Your task to perform on an android device: What's the weather going to be this weekend? Image 0: 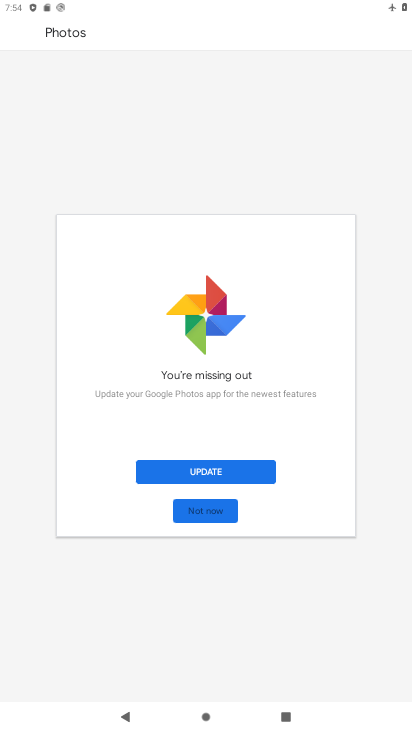
Step 0: press back button
Your task to perform on an android device: What's the weather going to be this weekend? Image 1: 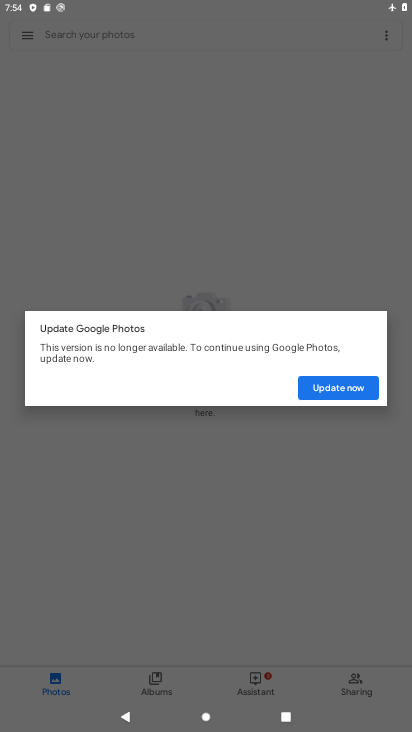
Step 1: press back button
Your task to perform on an android device: What's the weather going to be this weekend? Image 2: 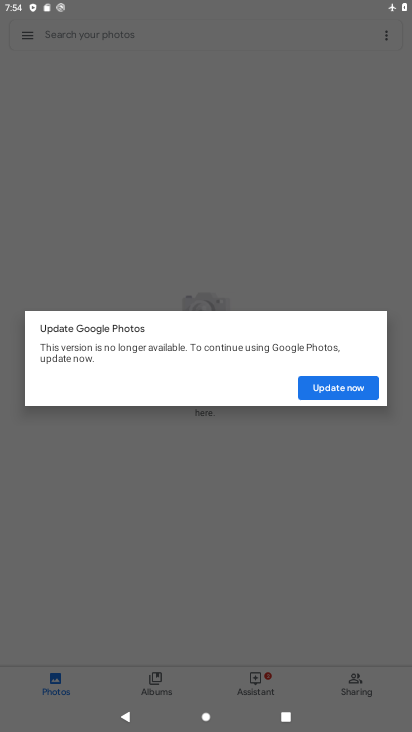
Step 2: press home button
Your task to perform on an android device: What's the weather going to be this weekend? Image 3: 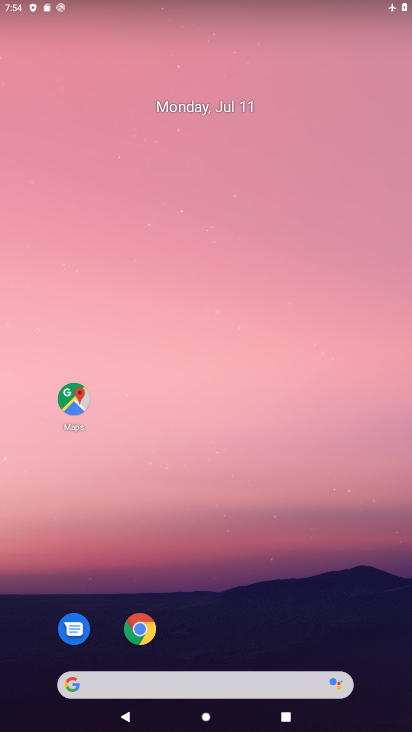
Step 3: click (181, 676)
Your task to perform on an android device: What's the weather going to be this weekend? Image 4: 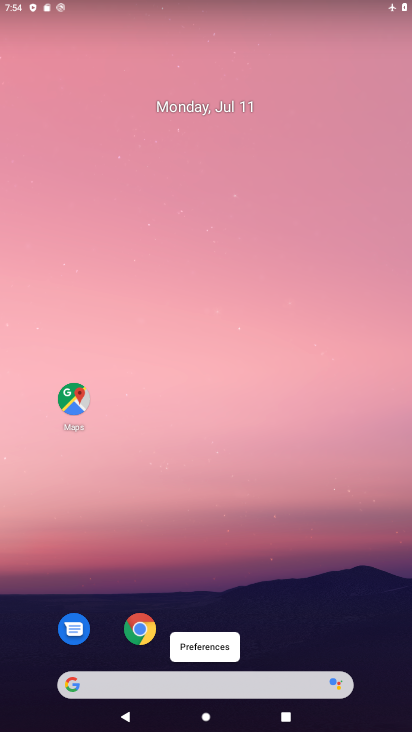
Step 4: click (170, 688)
Your task to perform on an android device: What's the weather going to be this weekend? Image 5: 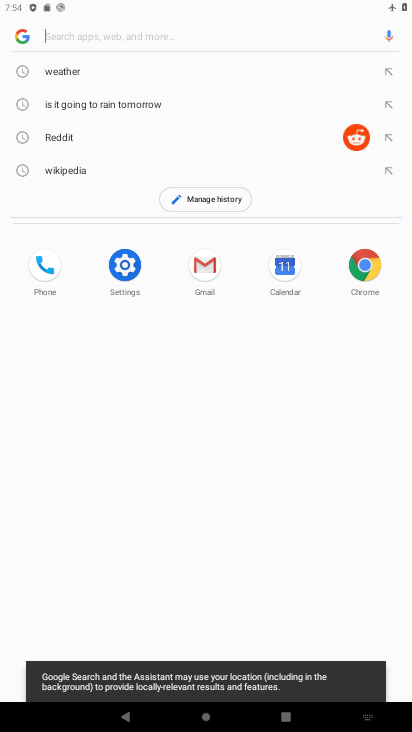
Step 5: click (89, 63)
Your task to perform on an android device: What's the weather going to be this weekend? Image 6: 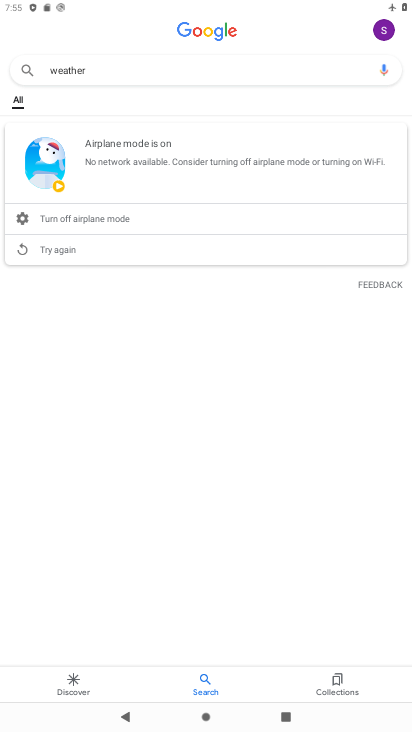
Step 6: task complete